Your task to perform on an android device: What's the weather today? Image 0: 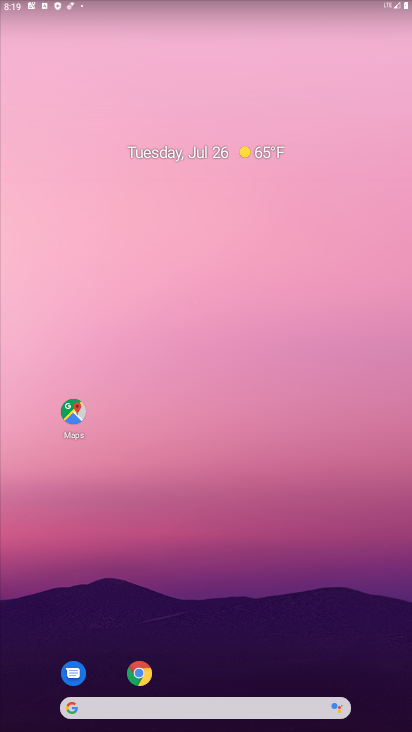
Step 0: drag from (211, 651) to (219, 221)
Your task to perform on an android device: What's the weather today? Image 1: 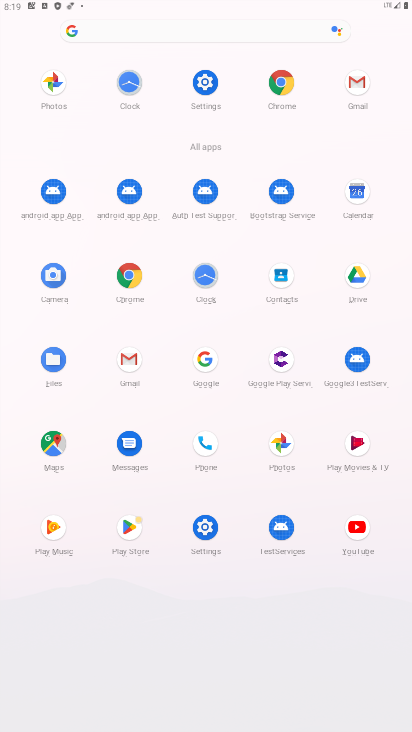
Step 1: click (203, 378)
Your task to perform on an android device: What's the weather today? Image 2: 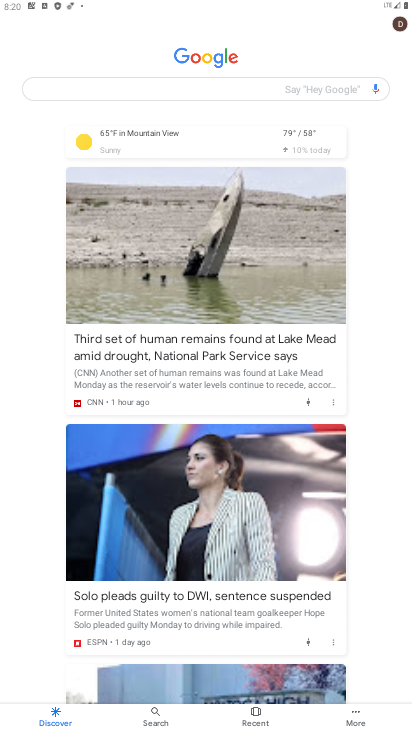
Step 2: click (158, 141)
Your task to perform on an android device: What's the weather today? Image 3: 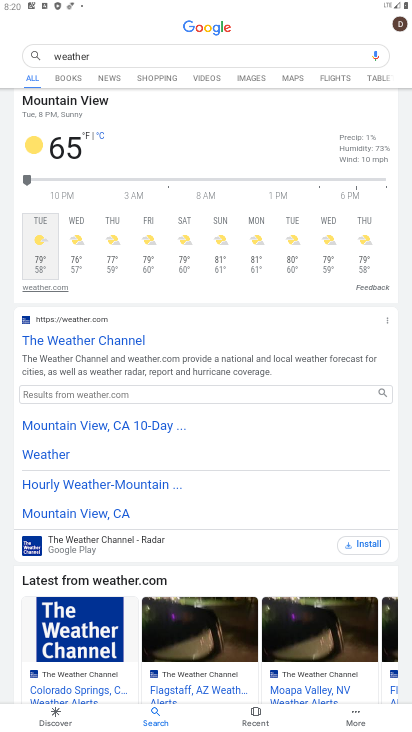
Step 3: task complete